Your task to perform on an android device: Go to Maps Image 0: 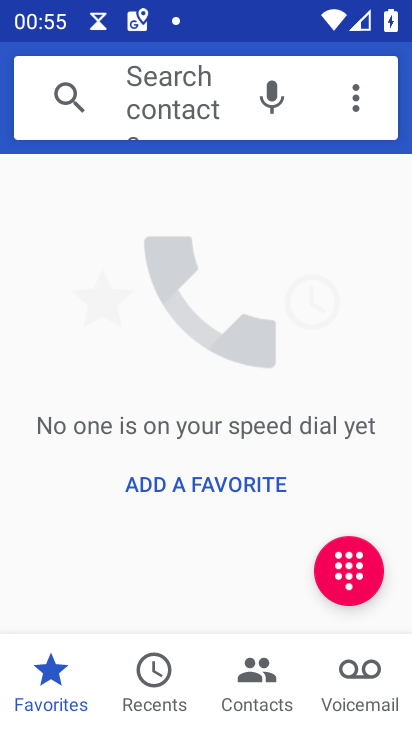
Step 0: press home button
Your task to perform on an android device: Go to Maps Image 1: 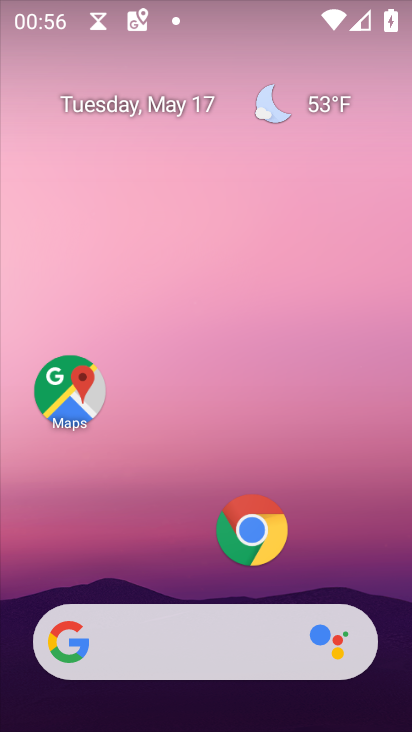
Step 1: click (71, 377)
Your task to perform on an android device: Go to Maps Image 2: 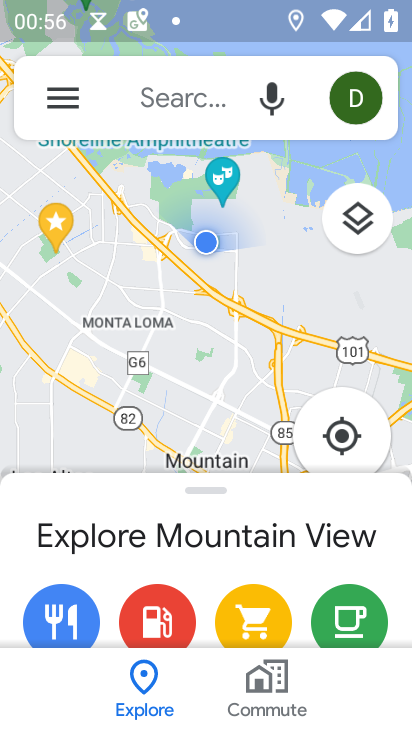
Step 2: task complete